Your task to perform on an android device: open a new tab in the chrome app Image 0: 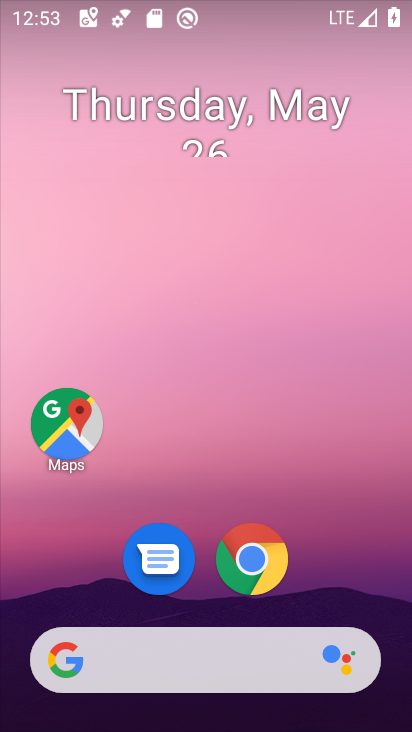
Step 0: press home button
Your task to perform on an android device: open a new tab in the chrome app Image 1: 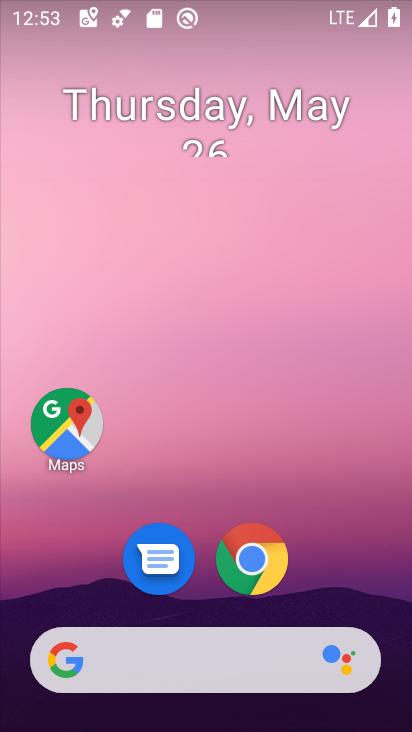
Step 1: click (262, 560)
Your task to perform on an android device: open a new tab in the chrome app Image 2: 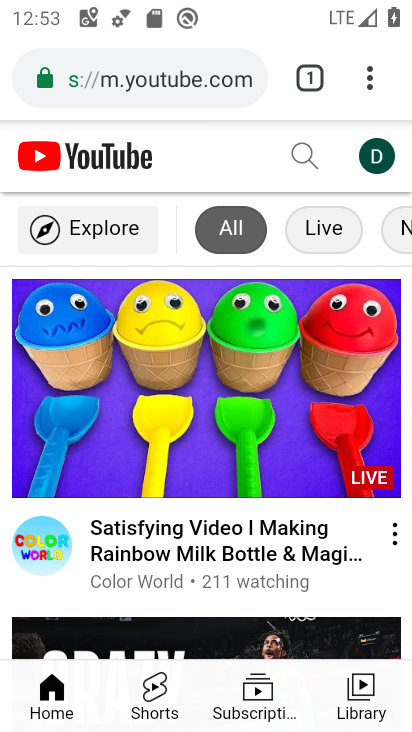
Step 2: click (310, 83)
Your task to perform on an android device: open a new tab in the chrome app Image 3: 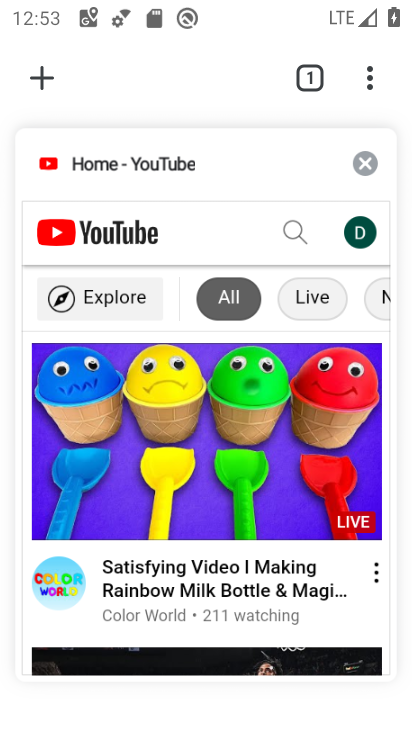
Step 3: click (41, 78)
Your task to perform on an android device: open a new tab in the chrome app Image 4: 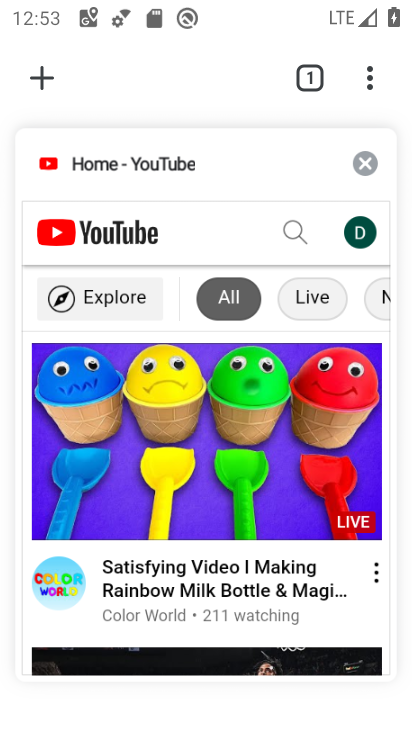
Step 4: click (44, 77)
Your task to perform on an android device: open a new tab in the chrome app Image 5: 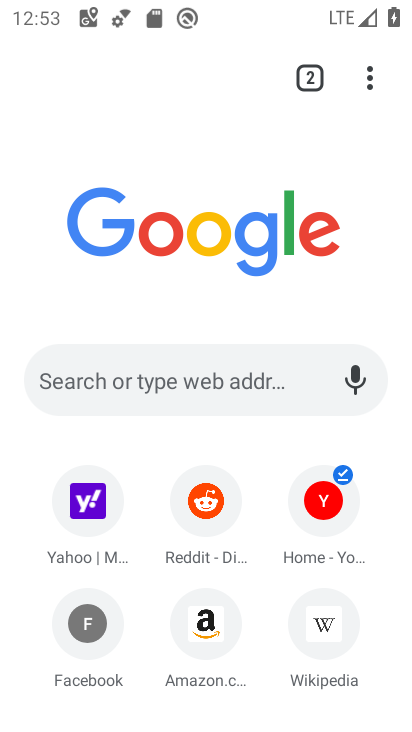
Step 5: task complete